Your task to perform on an android device: open a new tab in the chrome app Image 0: 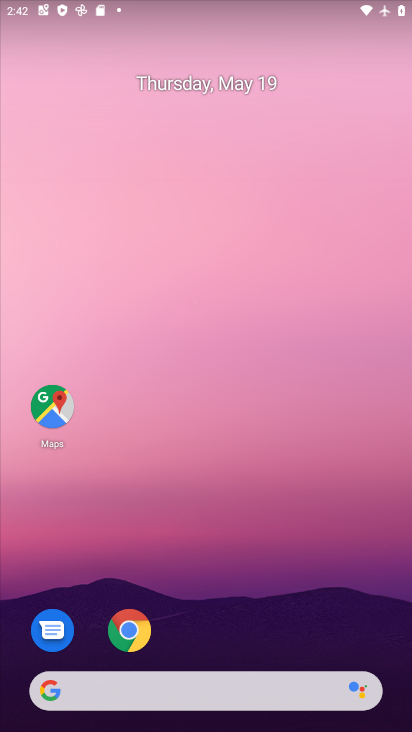
Step 0: click (130, 630)
Your task to perform on an android device: open a new tab in the chrome app Image 1: 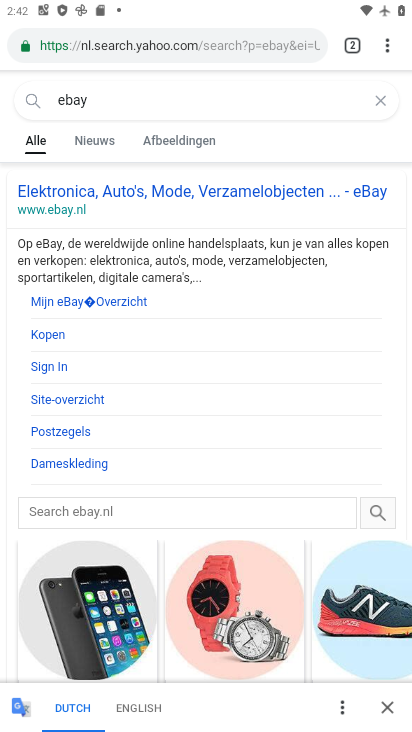
Step 1: click (387, 50)
Your task to perform on an android device: open a new tab in the chrome app Image 2: 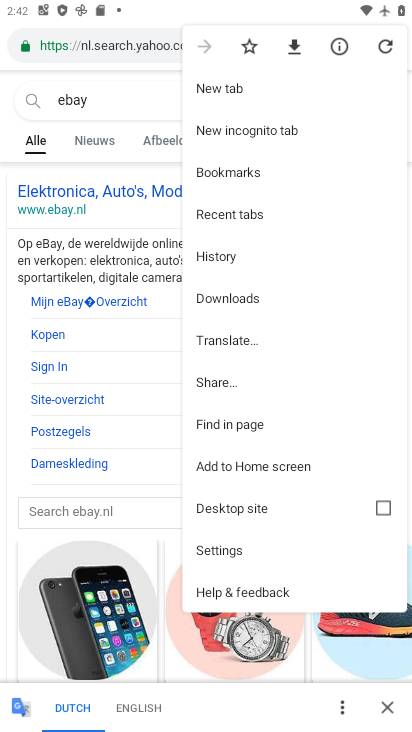
Step 2: click (215, 88)
Your task to perform on an android device: open a new tab in the chrome app Image 3: 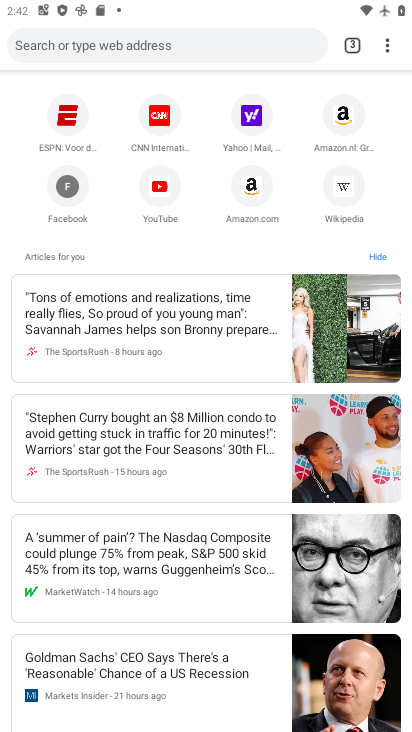
Step 3: task complete